Your task to perform on an android device: Open Google Chrome Image 0: 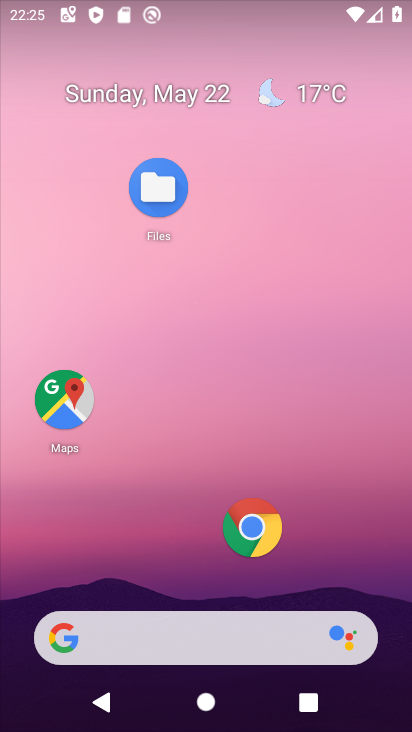
Step 0: click (257, 528)
Your task to perform on an android device: Open Google Chrome Image 1: 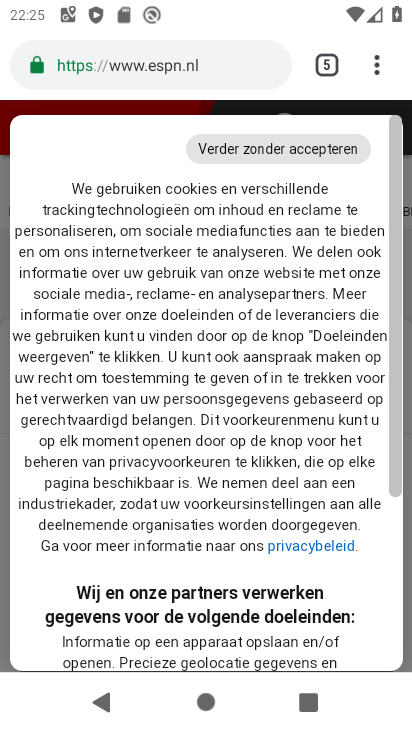
Step 1: click (369, 64)
Your task to perform on an android device: Open Google Chrome Image 2: 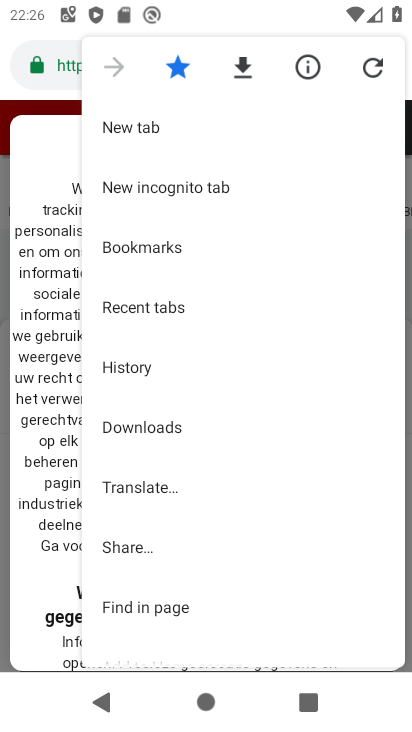
Step 2: click (139, 123)
Your task to perform on an android device: Open Google Chrome Image 3: 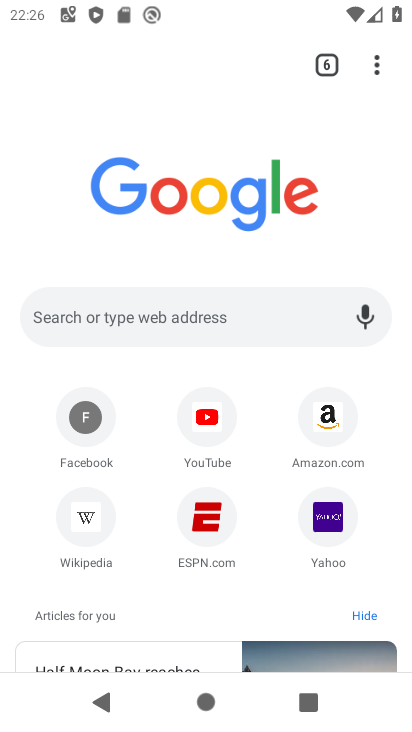
Step 3: task complete